Your task to perform on an android device: find snoozed emails in the gmail app Image 0: 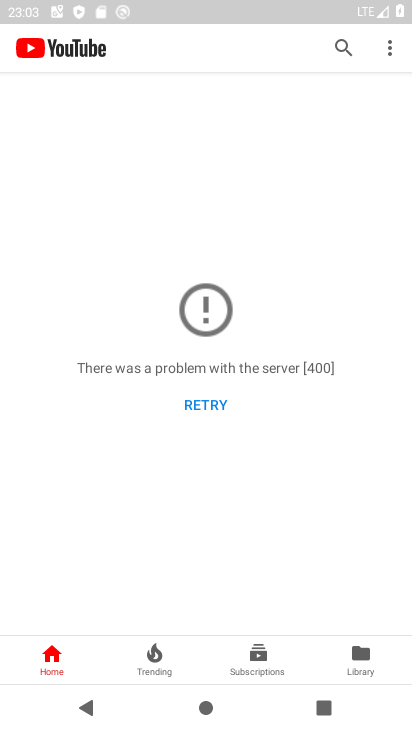
Step 0: press back button
Your task to perform on an android device: find snoozed emails in the gmail app Image 1: 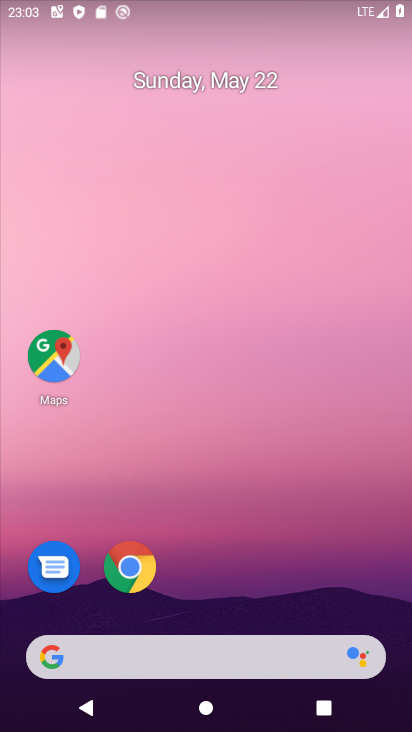
Step 1: drag from (313, 578) to (337, 17)
Your task to perform on an android device: find snoozed emails in the gmail app Image 2: 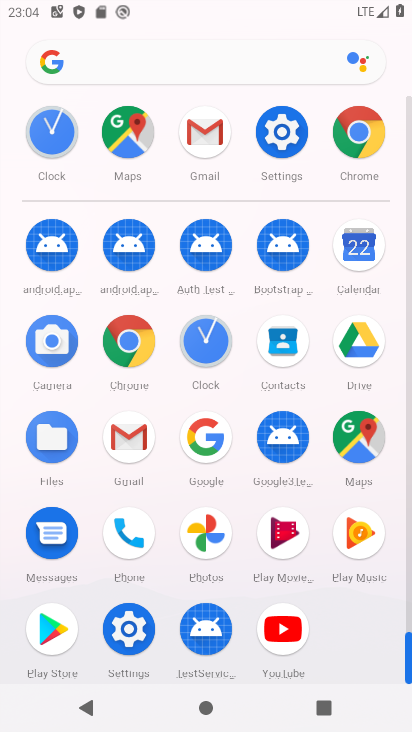
Step 2: click (132, 431)
Your task to perform on an android device: find snoozed emails in the gmail app Image 3: 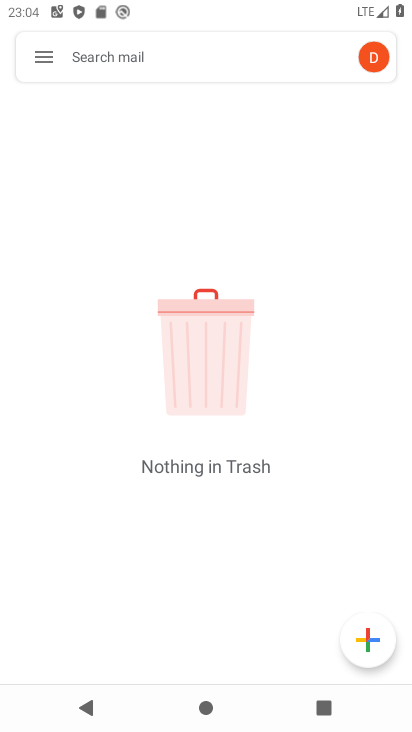
Step 3: click (51, 54)
Your task to perform on an android device: find snoozed emails in the gmail app Image 4: 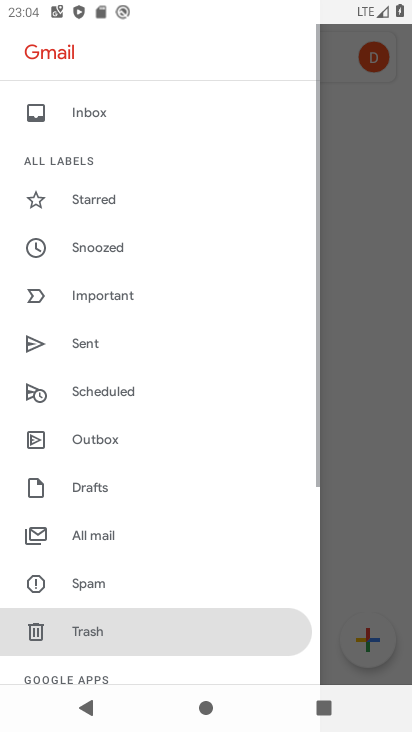
Step 4: drag from (183, 164) to (201, 556)
Your task to perform on an android device: find snoozed emails in the gmail app Image 5: 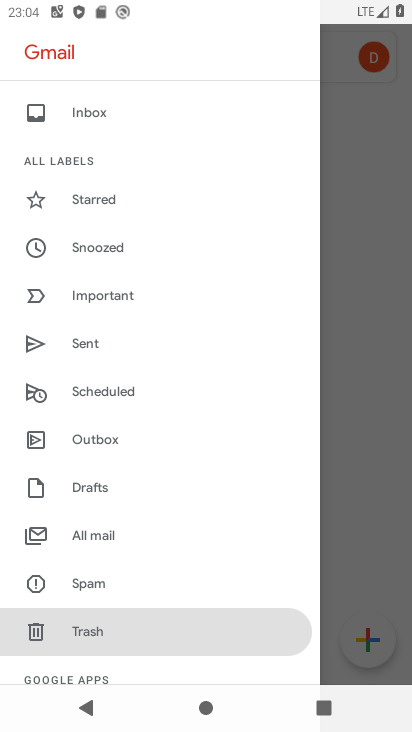
Step 5: click (122, 247)
Your task to perform on an android device: find snoozed emails in the gmail app Image 6: 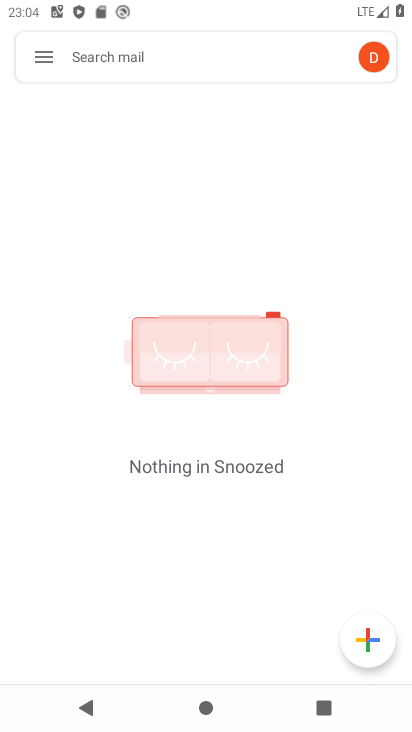
Step 6: task complete